Your task to perform on an android device: Show me popular games on the Play Store Image 0: 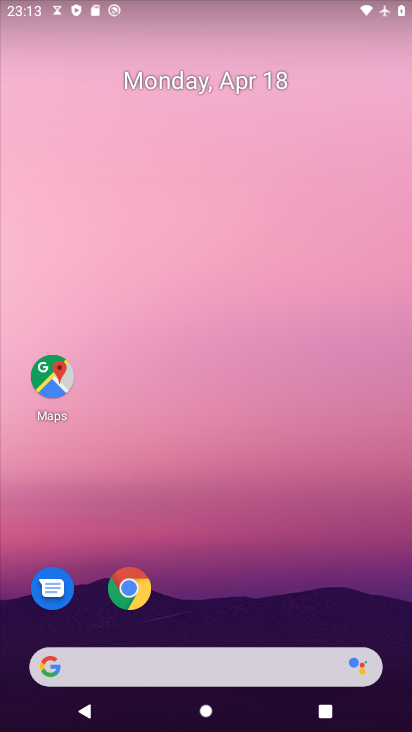
Step 0: drag from (366, 549) to (219, 9)
Your task to perform on an android device: Show me popular games on the Play Store Image 1: 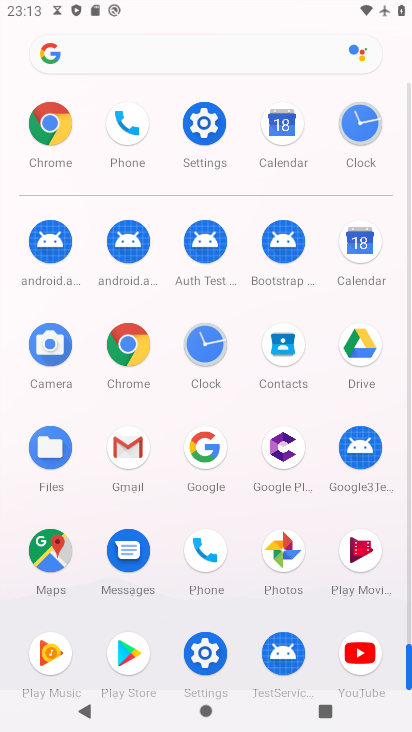
Step 1: drag from (2, 576) to (17, 370)
Your task to perform on an android device: Show me popular games on the Play Store Image 2: 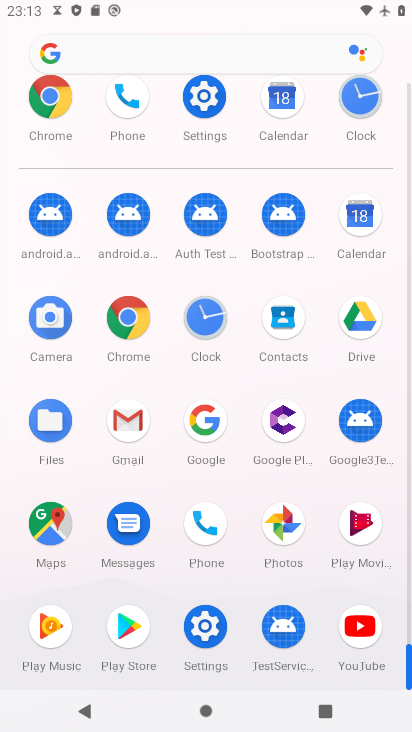
Step 2: click (131, 626)
Your task to perform on an android device: Show me popular games on the Play Store Image 3: 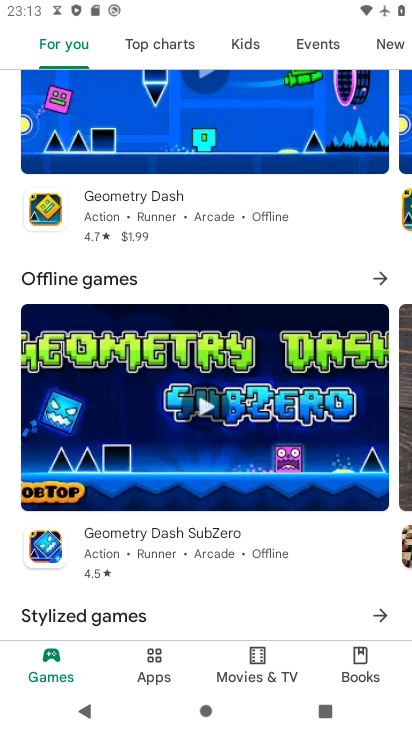
Step 3: task complete